Your task to perform on an android device: Go to Google maps Image 0: 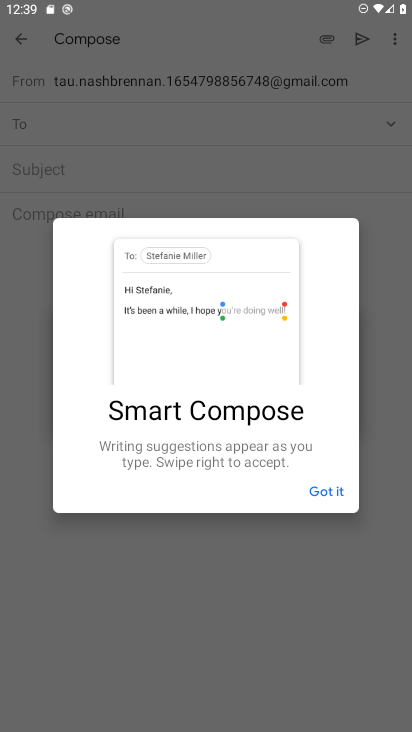
Step 0: press home button
Your task to perform on an android device: Go to Google maps Image 1: 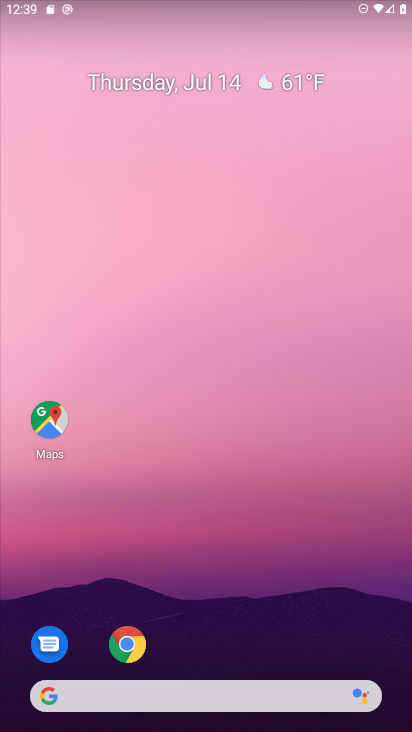
Step 1: drag from (313, 630) to (317, 131)
Your task to perform on an android device: Go to Google maps Image 2: 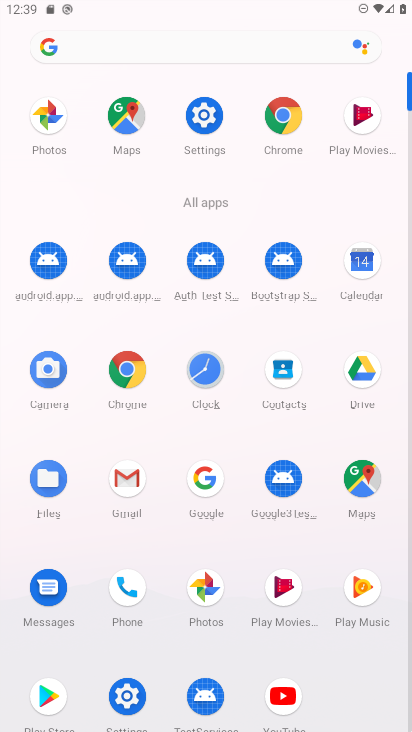
Step 2: click (127, 126)
Your task to perform on an android device: Go to Google maps Image 3: 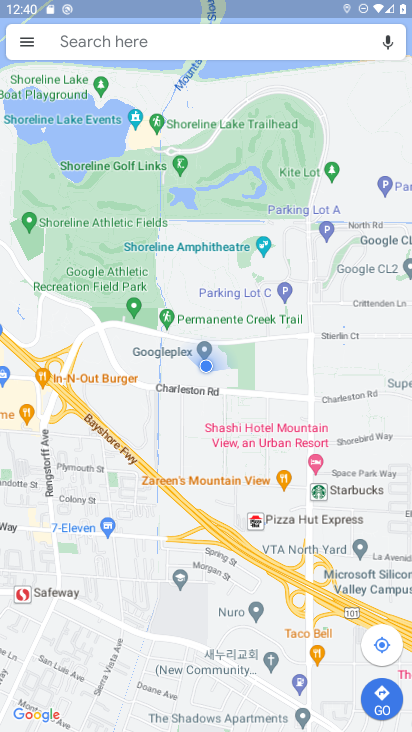
Step 3: task complete